Your task to perform on an android device: toggle location history Image 0: 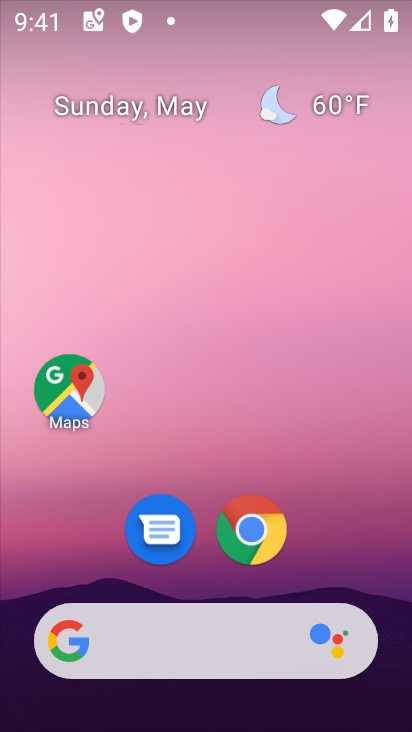
Step 0: drag from (385, 574) to (393, 257)
Your task to perform on an android device: toggle location history Image 1: 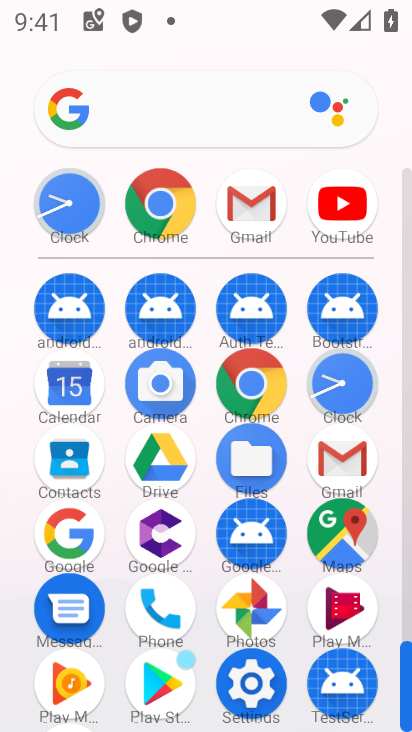
Step 1: click (263, 691)
Your task to perform on an android device: toggle location history Image 2: 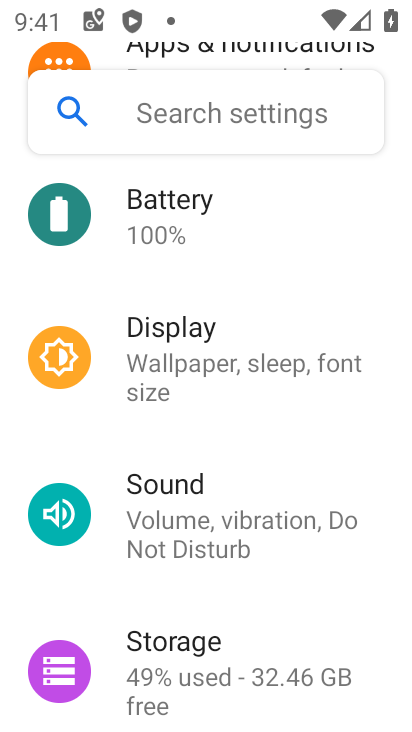
Step 2: drag from (342, 247) to (352, 432)
Your task to perform on an android device: toggle location history Image 3: 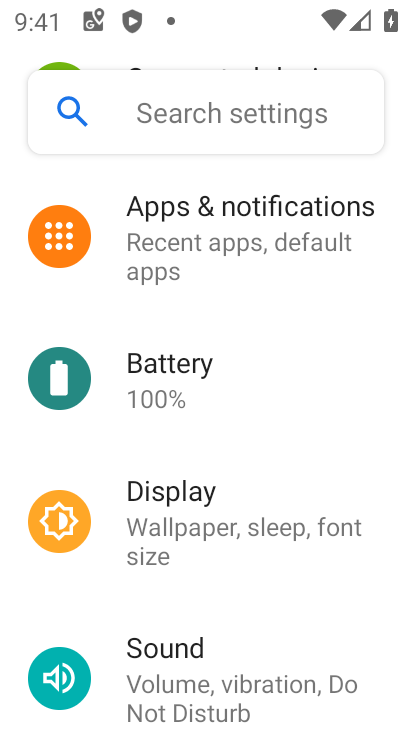
Step 3: drag from (368, 298) to (366, 453)
Your task to perform on an android device: toggle location history Image 4: 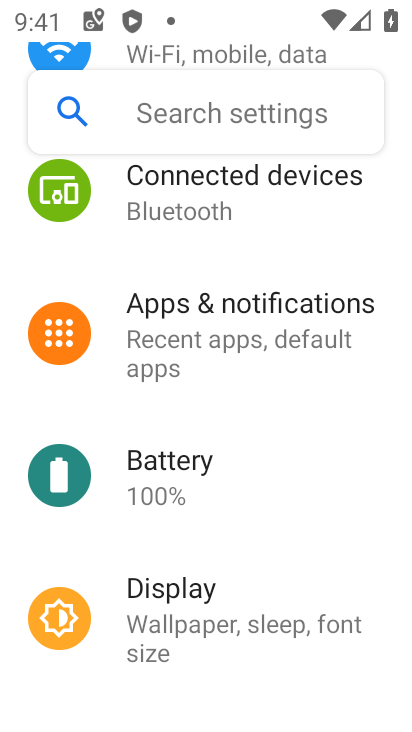
Step 4: drag from (308, 559) to (307, 366)
Your task to perform on an android device: toggle location history Image 5: 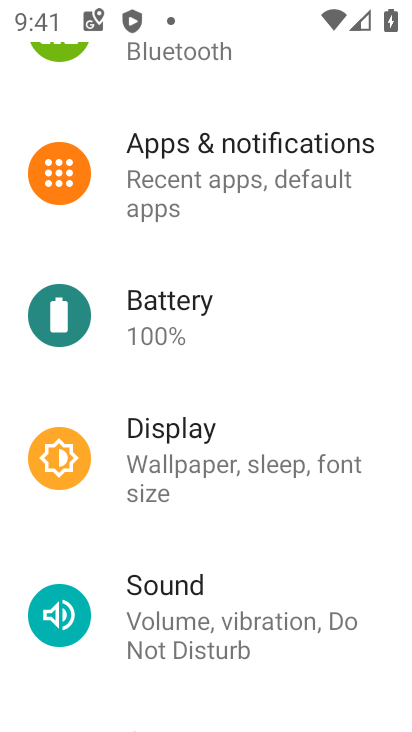
Step 5: drag from (311, 661) to (319, 455)
Your task to perform on an android device: toggle location history Image 6: 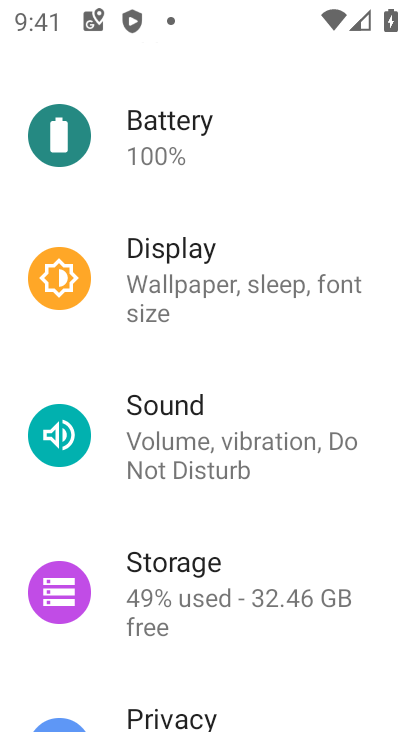
Step 6: drag from (289, 683) to (289, 434)
Your task to perform on an android device: toggle location history Image 7: 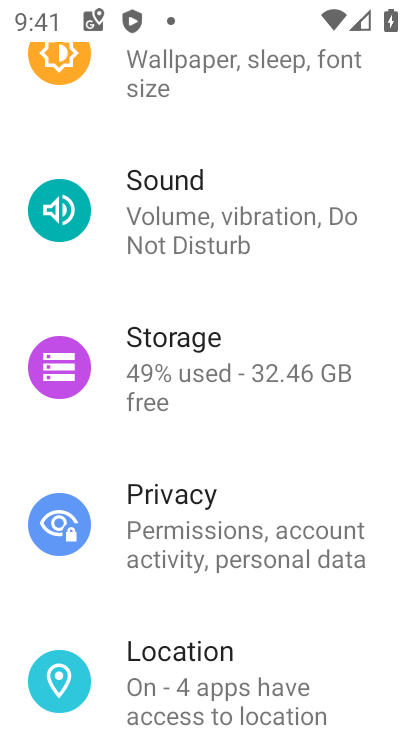
Step 7: drag from (377, 668) to (378, 452)
Your task to perform on an android device: toggle location history Image 8: 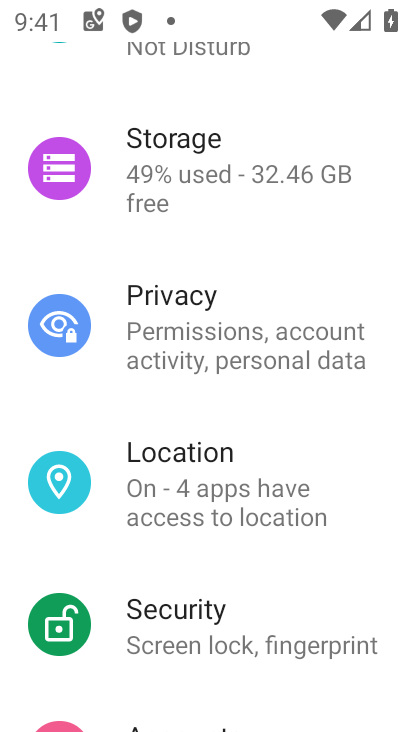
Step 8: click (203, 501)
Your task to perform on an android device: toggle location history Image 9: 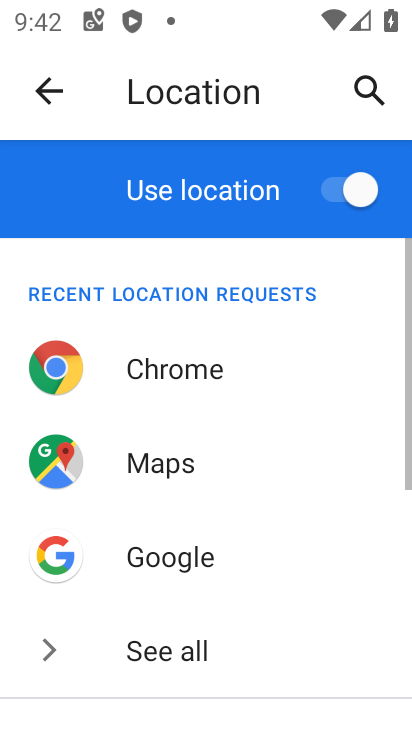
Step 9: drag from (307, 607) to (324, 386)
Your task to perform on an android device: toggle location history Image 10: 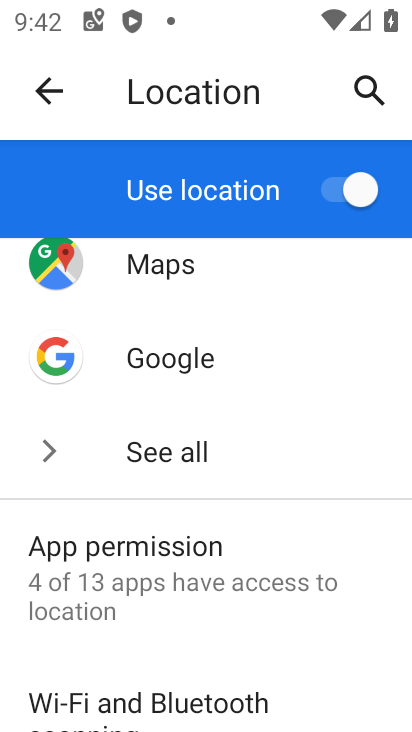
Step 10: drag from (287, 652) to (323, 381)
Your task to perform on an android device: toggle location history Image 11: 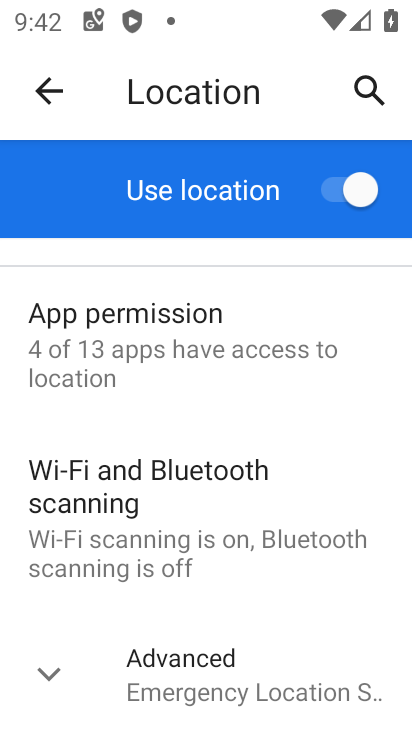
Step 11: click (266, 680)
Your task to perform on an android device: toggle location history Image 12: 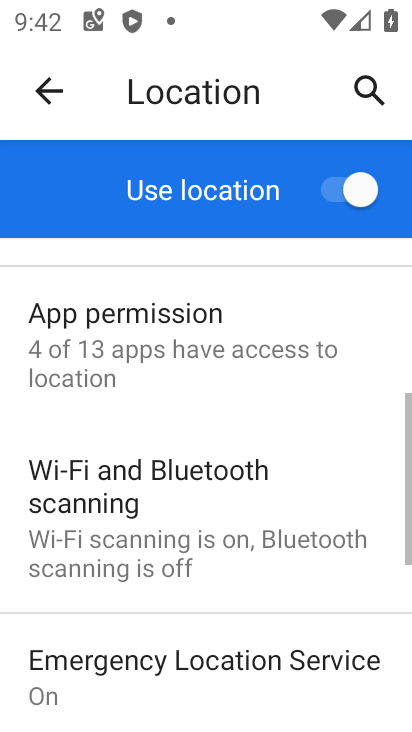
Step 12: drag from (265, 671) to (276, 456)
Your task to perform on an android device: toggle location history Image 13: 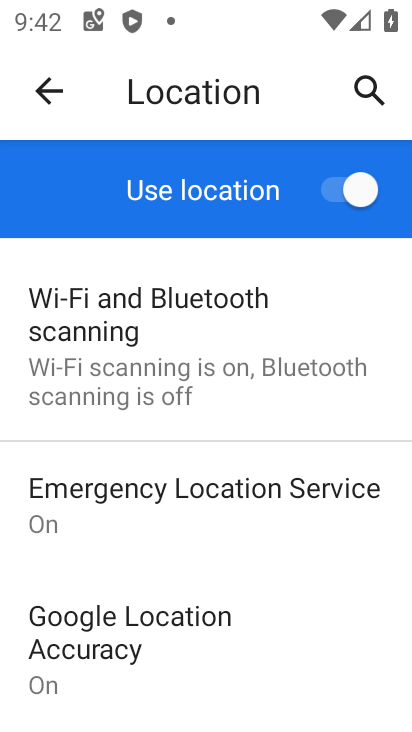
Step 13: drag from (272, 649) to (275, 435)
Your task to perform on an android device: toggle location history Image 14: 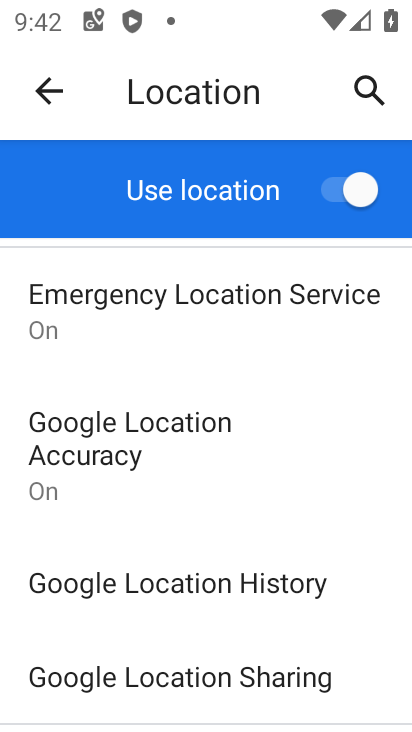
Step 14: click (243, 593)
Your task to perform on an android device: toggle location history Image 15: 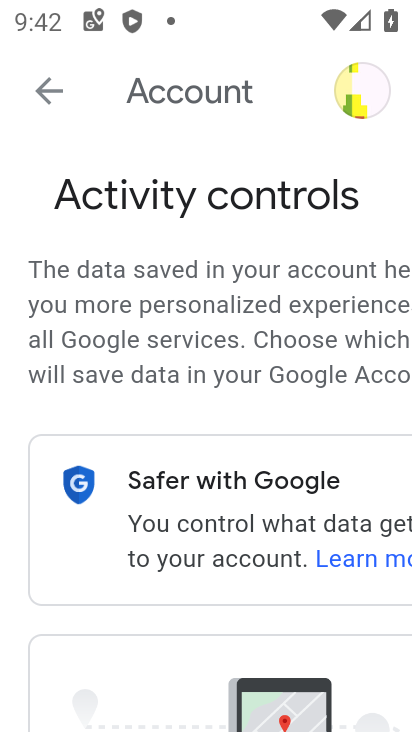
Step 15: drag from (233, 607) to (233, 402)
Your task to perform on an android device: toggle location history Image 16: 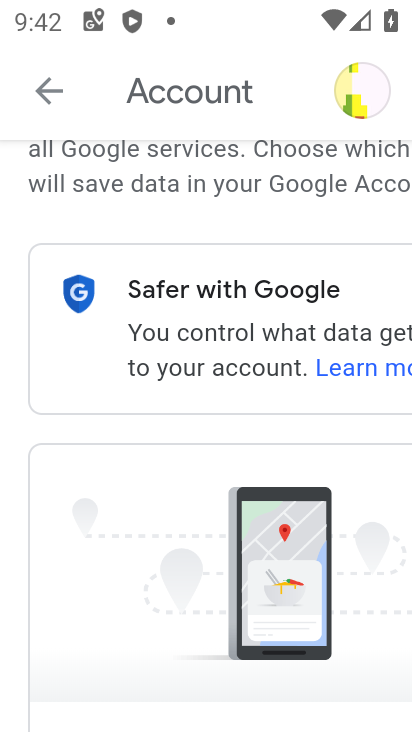
Step 16: drag from (200, 650) to (203, 559)
Your task to perform on an android device: toggle location history Image 17: 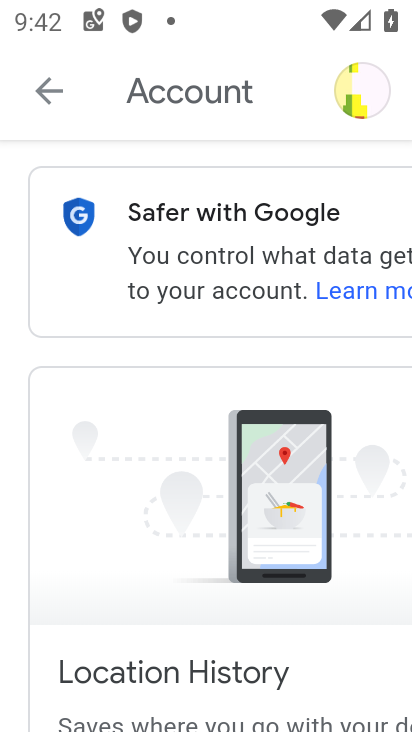
Step 17: drag from (223, 639) to (262, 240)
Your task to perform on an android device: toggle location history Image 18: 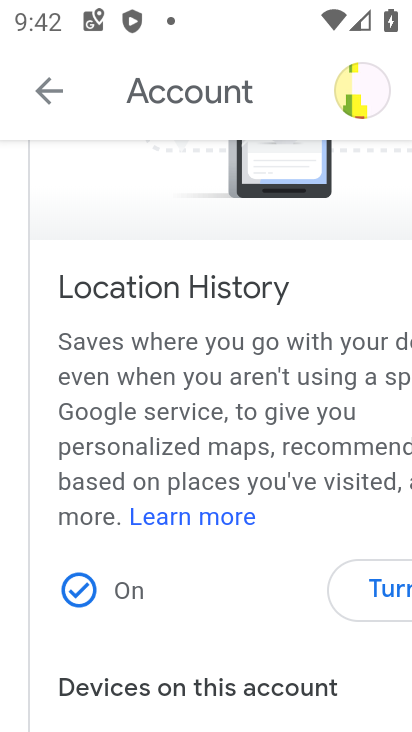
Step 18: click (381, 583)
Your task to perform on an android device: toggle location history Image 19: 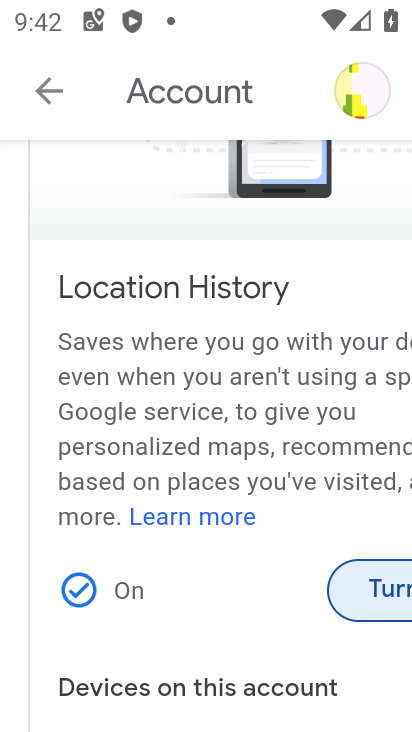
Step 19: click (348, 590)
Your task to perform on an android device: toggle location history Image 20: 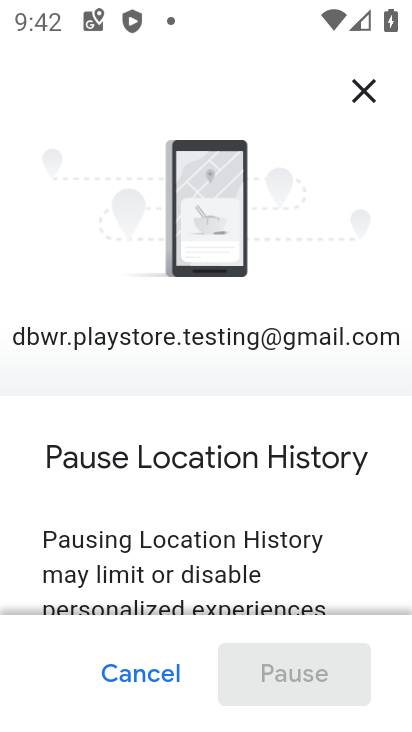
Step 20: drag from (348, 558) to (366, 356)
Your task to perform on an android device: toggle location history Image 21: 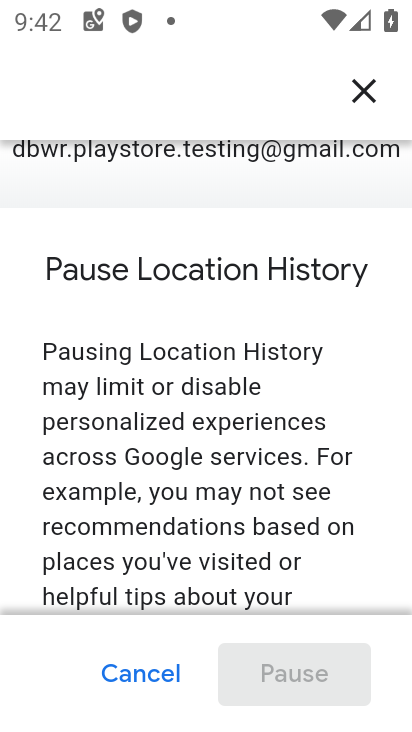
Step 21: drag from (362, 586) to (388, 377)
Your task to perform on an android device: toggle location history Image 22: 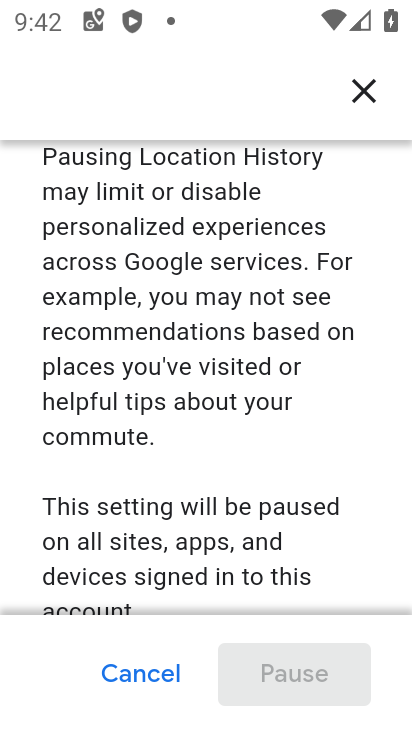
Step 22: drag from (335, 580) to (363, 366)
Your task to perform on an android device: toggle location history Image 23: 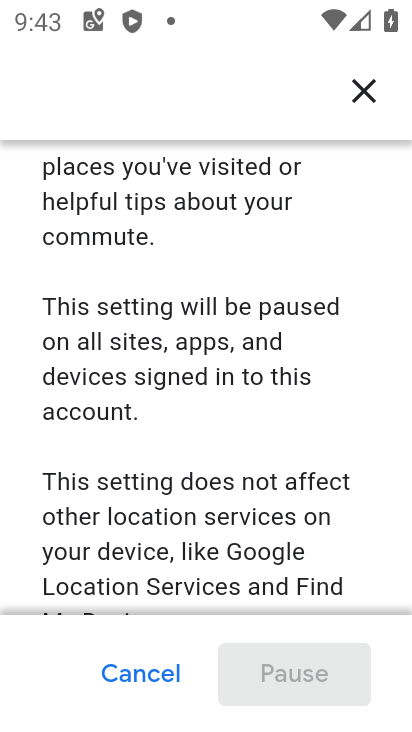
Step 23: drag from (356, 581) to (377, 439)
Your task to perform on an android device: toggle location history Image 24: 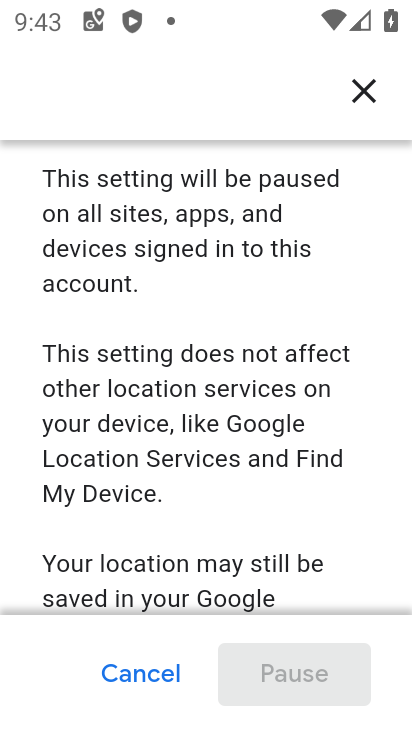
Step 24: drag from (350, 521) to (375, 411)
Your task to perform on an android device: toggle location history Image 25: 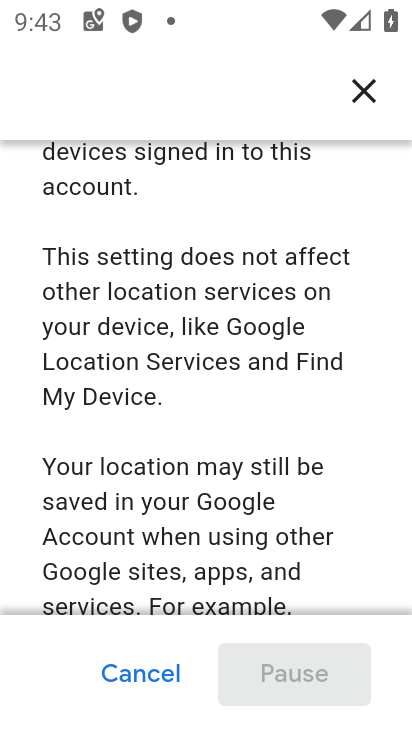
Step 25: drag from (343, 578) to (343, 494)
Your task to perform on an android device: toggle location history Image 26: 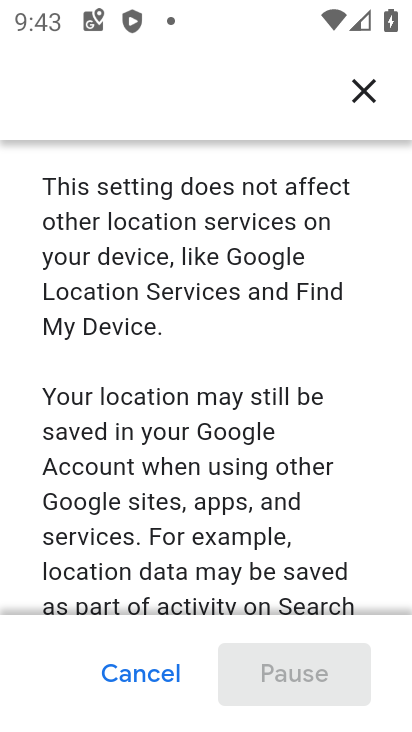
Step 26: drag from (321, 595) to (328, 464)
Your task to perform on an android device: toggle location history Image 27: 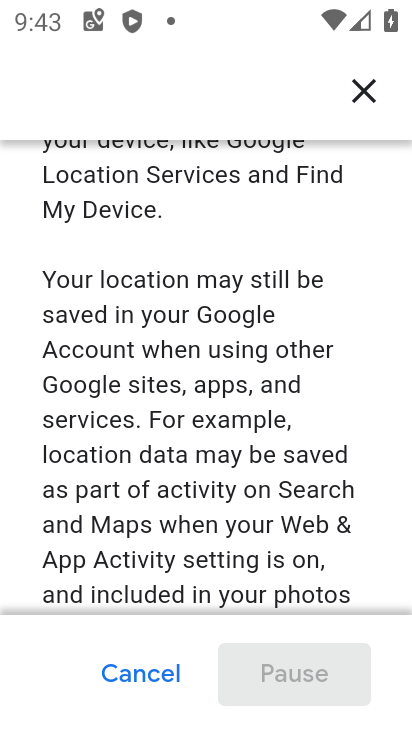
Step 27: drag from (373, 564) to (394, 362)
Your task to perform on an android device: toggle location history Image 28: 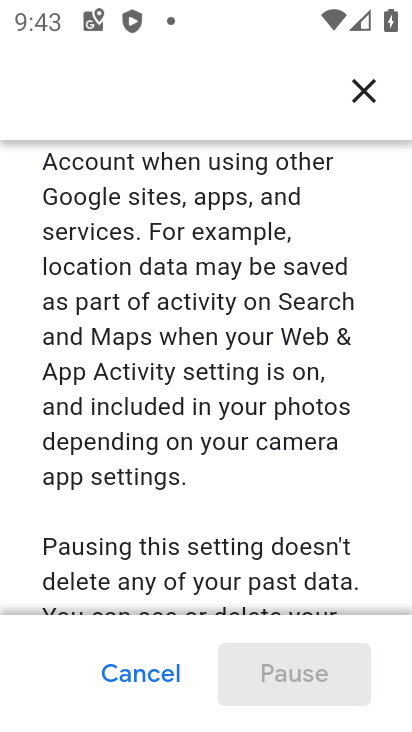
Step 28: drag from (368, 570) to (386, 329)
Your task to perform on an android device: toggle location history Image 29: 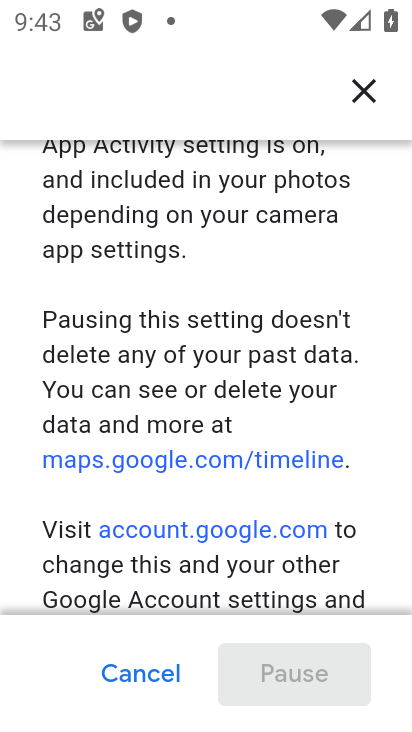
Step 29: drag from (366, 573) to (376, 256)
Your task to perform on an android device: toggle location history Image 30: 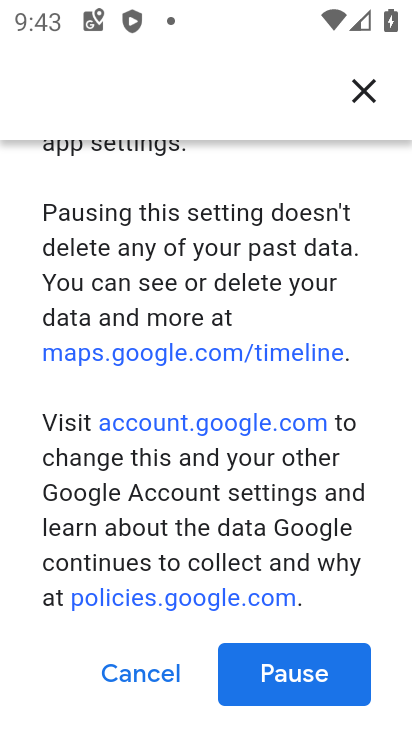
Step 30: click (308, 682)
Your task to perform on an android device: toggle location history Image 31: 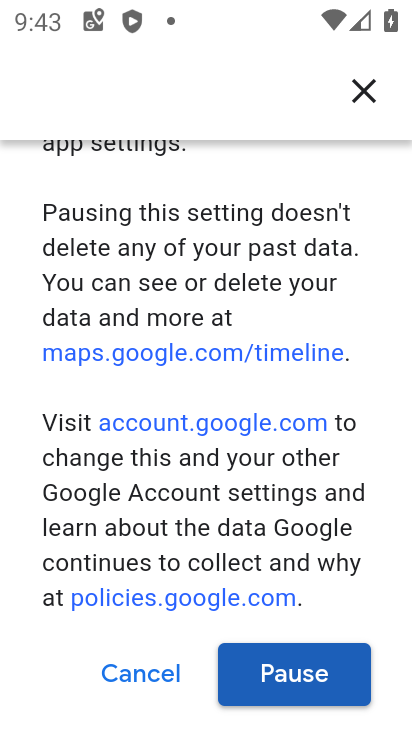
Step 31: click (303, 689)
Your task to perform on an android device: toggle location history Image 32: 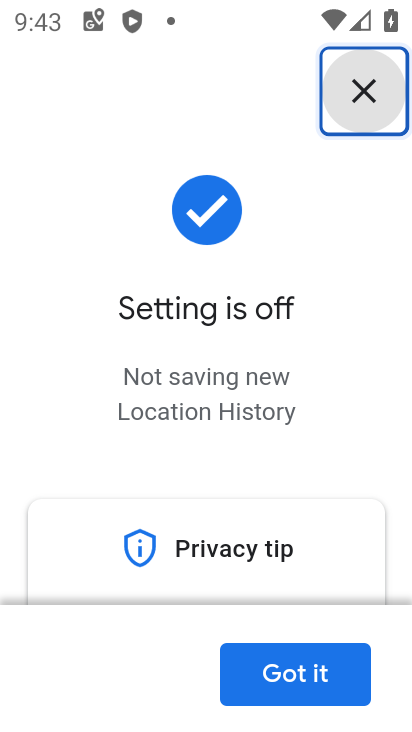
Step 32: task complete